Your task to perform on an android device: toggle sleep mode Image 0: 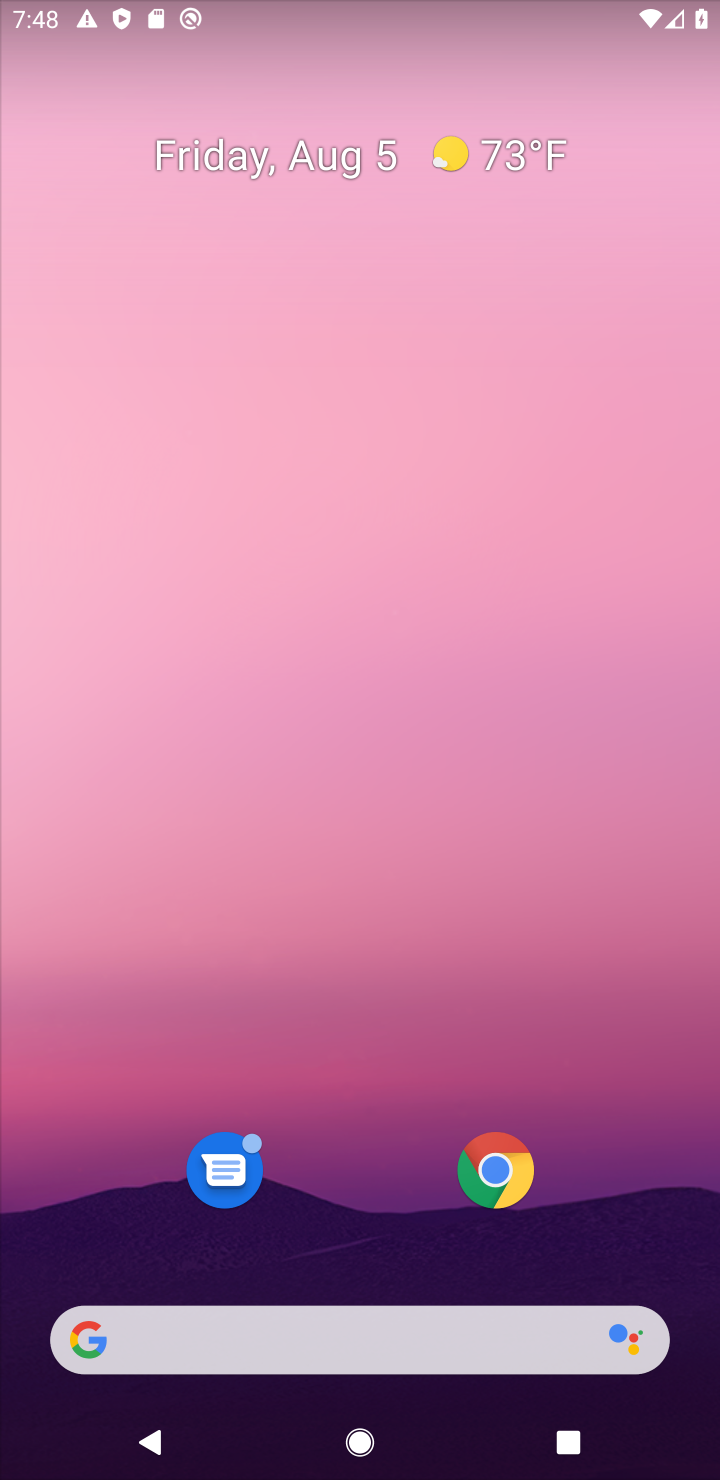
Step 0: press home button
Your task to perform on an android device: toggle sleep mode Image 1: 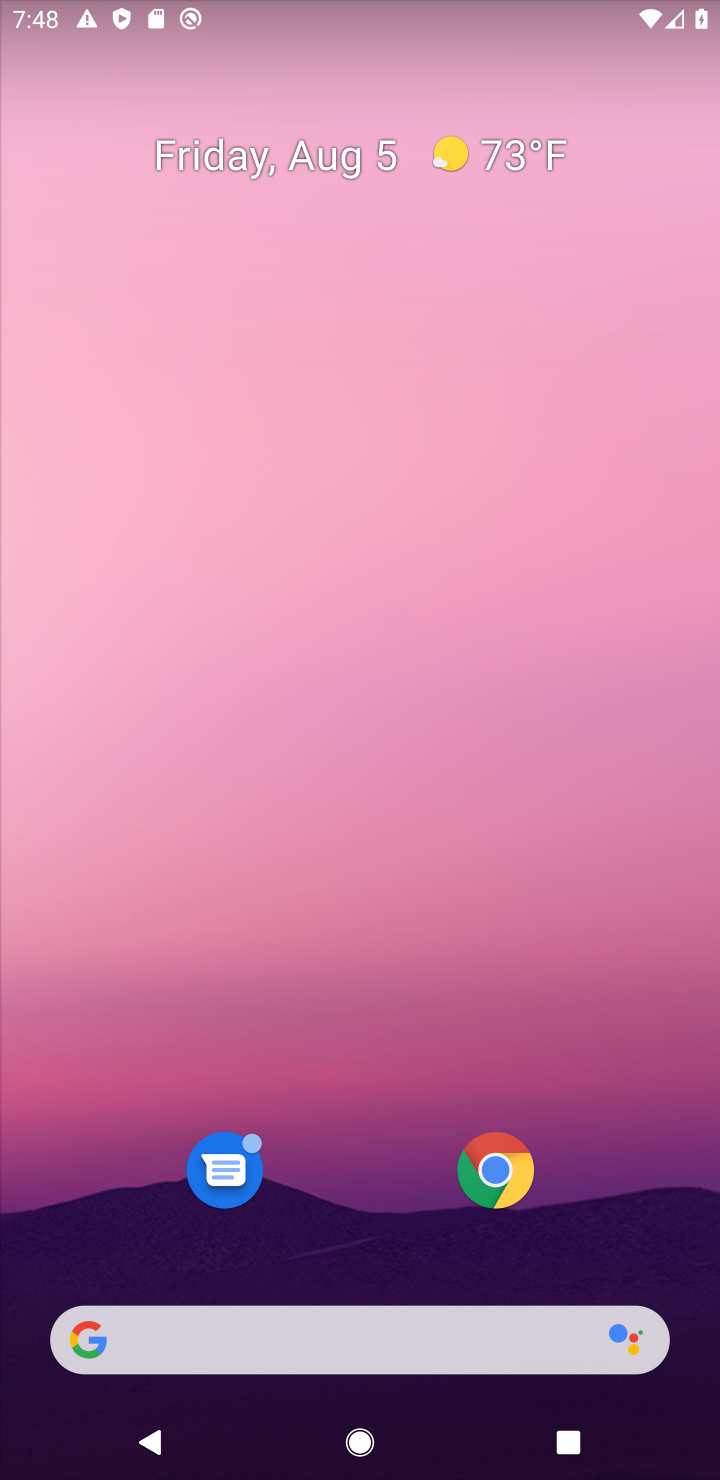
Step 1: drag from (649, 1219) to (587, 136)
Your task to perform on an android device: toggle sleep mode Image 2: 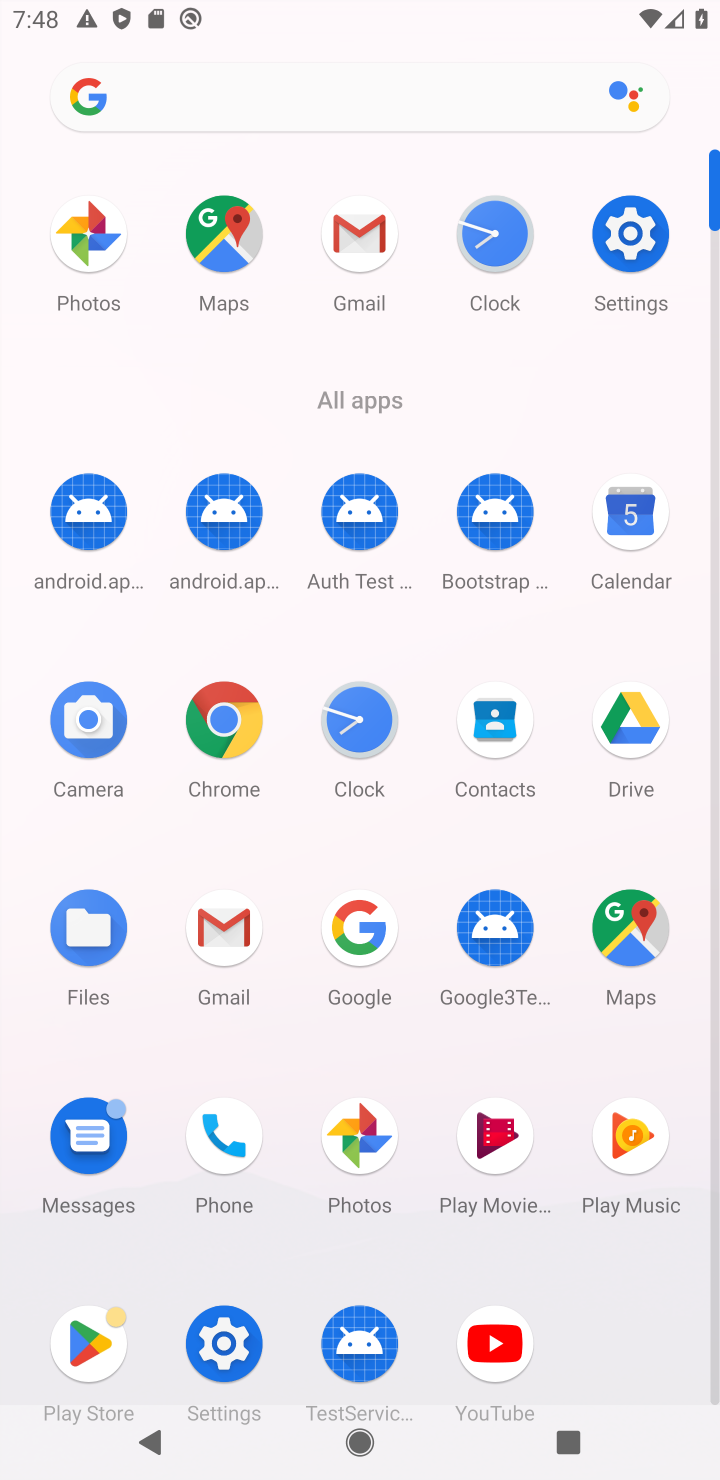
Step 2: click (218, 1339)
Your task to perform on an android device: toggle sleep mode Image 3: 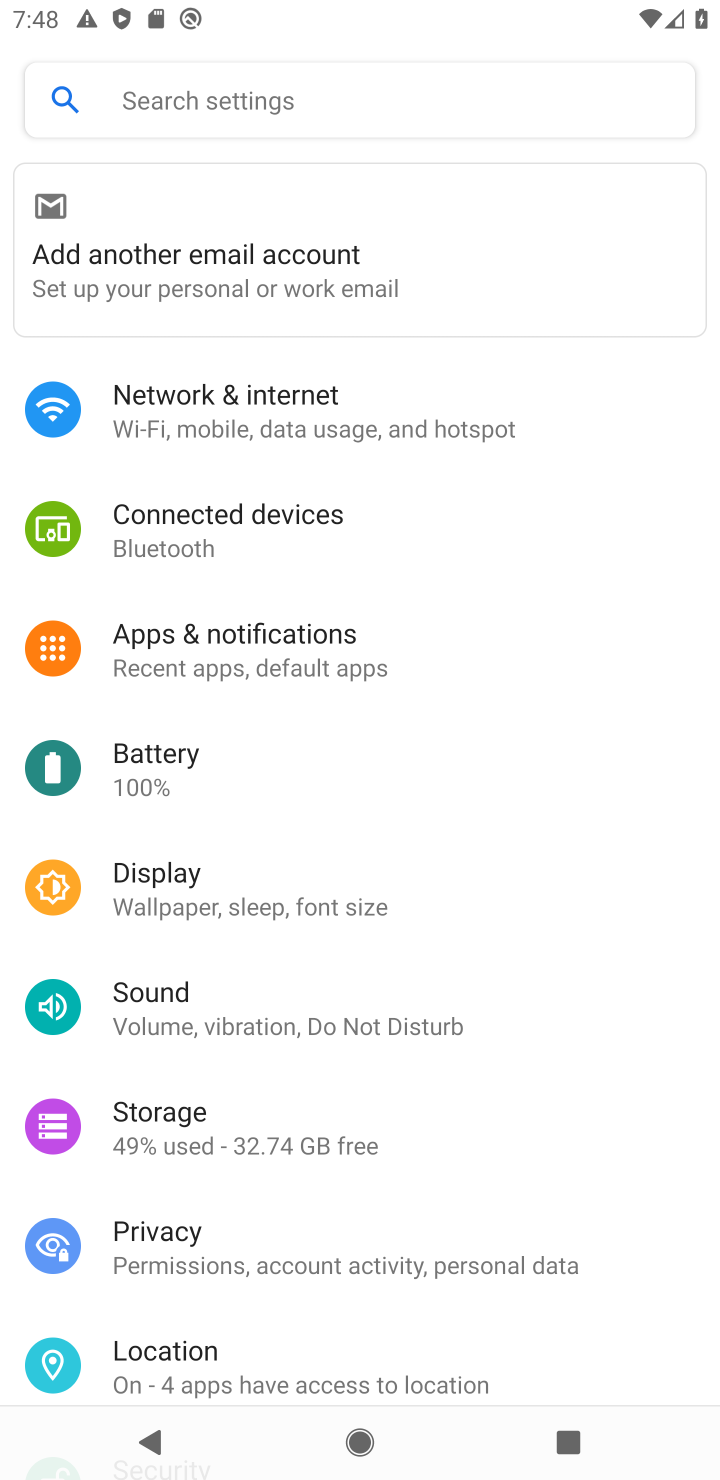
Step 3: click (196, 904)
Your task to perform on an android device: toggle sleep mode Image 4: 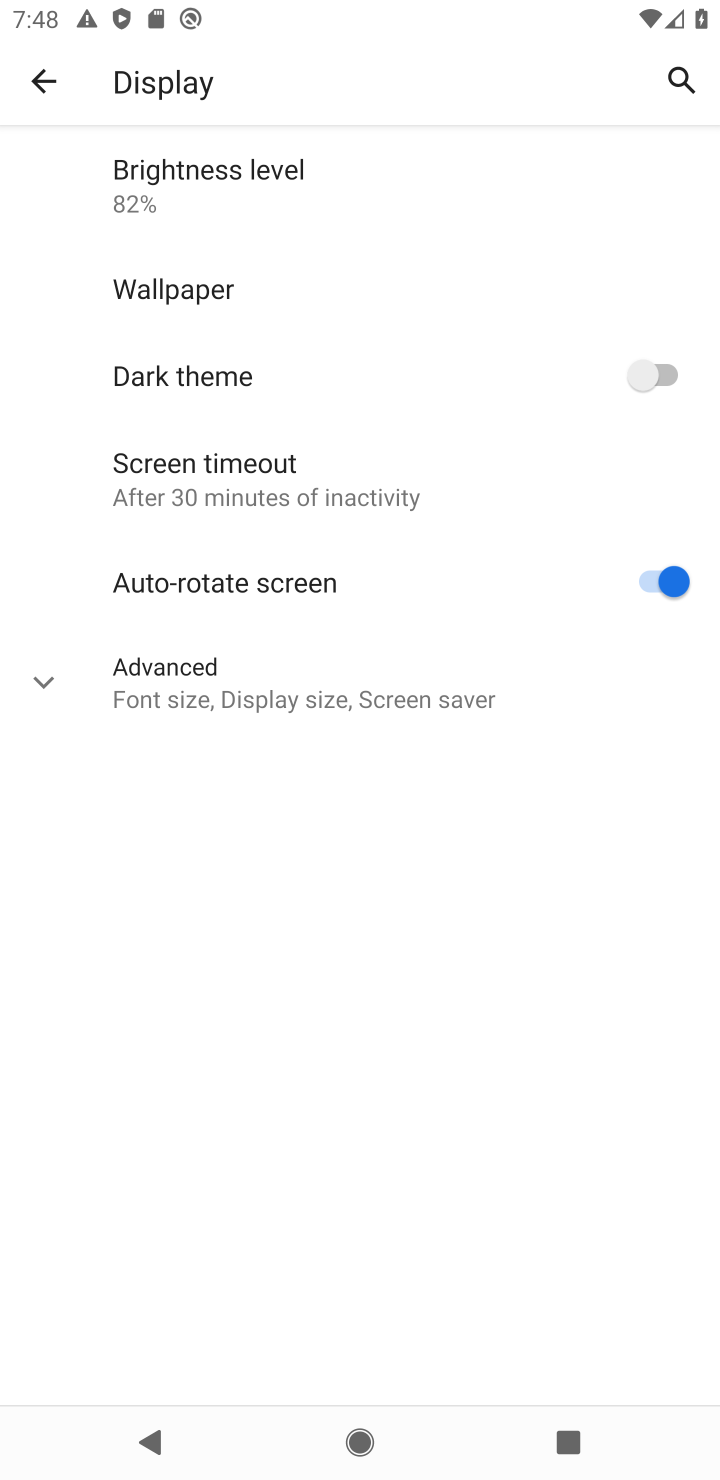
Step 4: click (38, 675)
Your task to perform on an android device: toggle sleep mode Image 5: 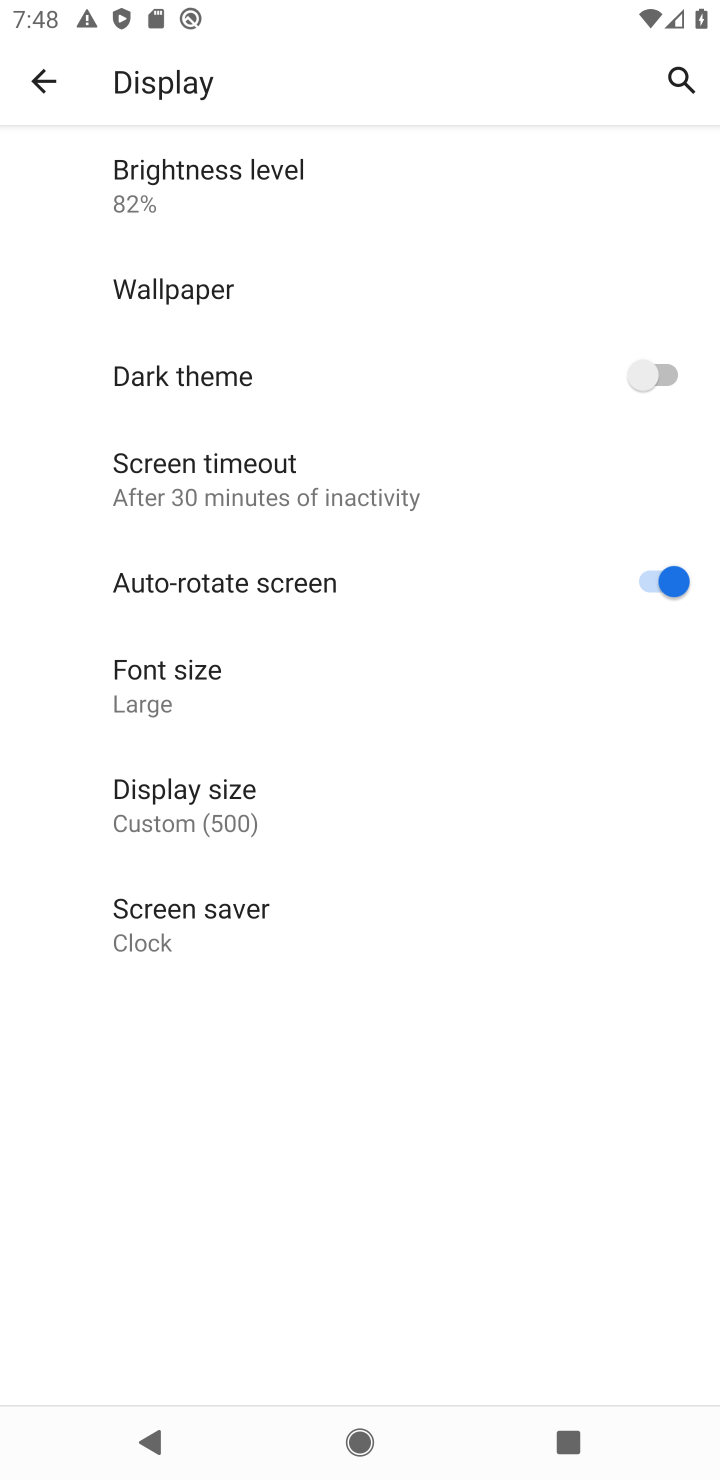
Step 5: task complete